Your task to perform on an android device: Open Reddit.com Image 0: 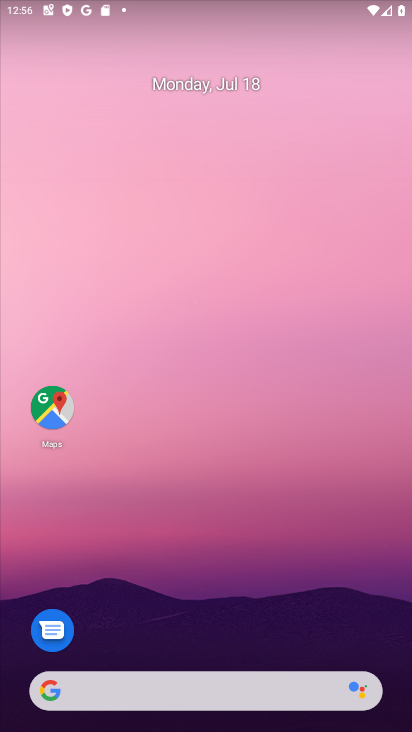
Step 0: drag from (168, 721) to (189, 5)
Your task to perform on an android device: Open Reddit.com Image 1: 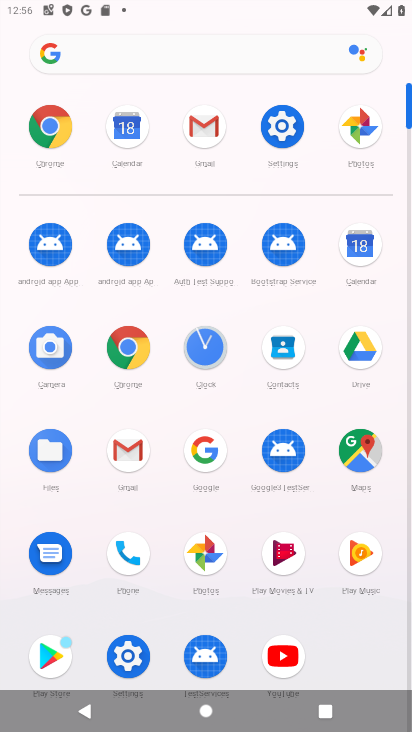
Step 1: click (128, 343)
Your task to perform on an android device: Open Reddit.com Image 2: 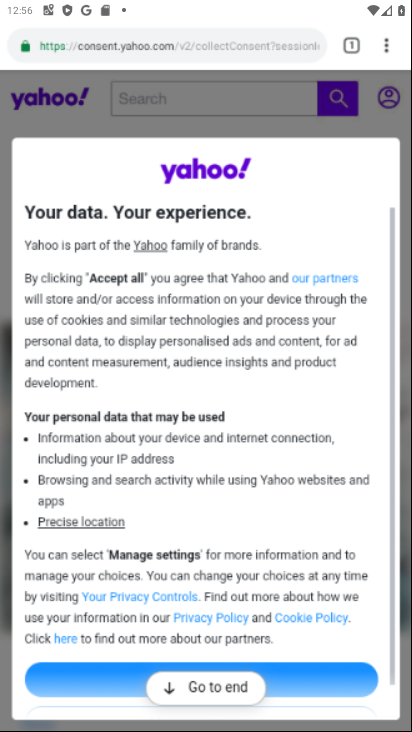
Step 2: click (174, 37)
Your task to perform on an android device: Open Reddit.com Image 3: 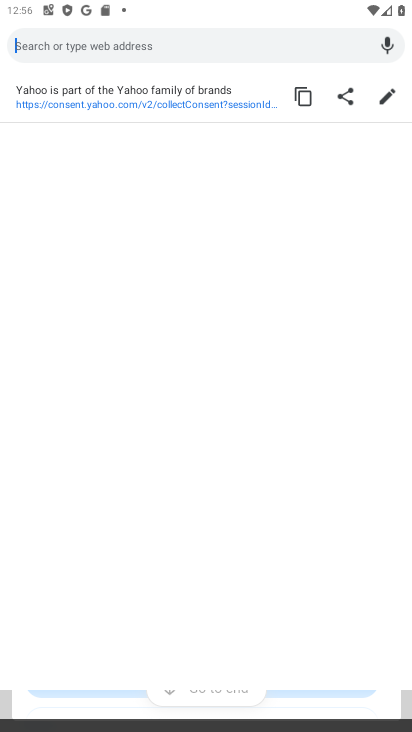
Step 3: type ""
Your task to perform on an android device: Open Reddit.com Image 4: 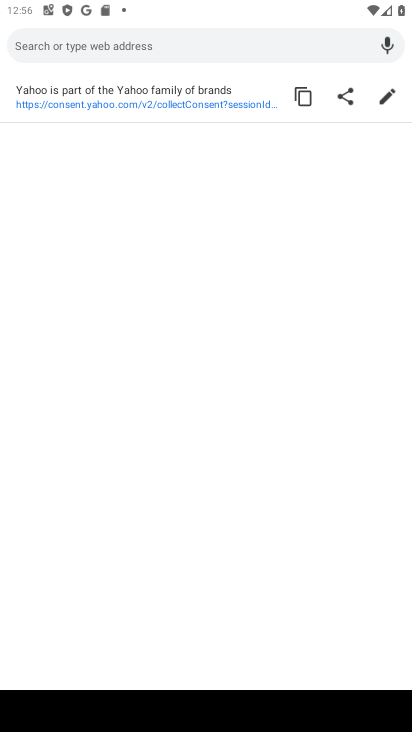
Step 4: type "reddit.com"
Your task to perform on an android device: Open Reddit.com Image 5: 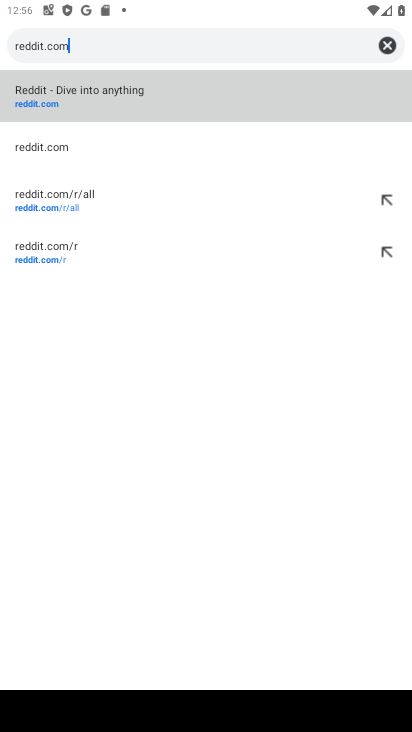
Step 5: click (175, 100)
Your task to perform on an android device: Open Reddit.com Image 6: 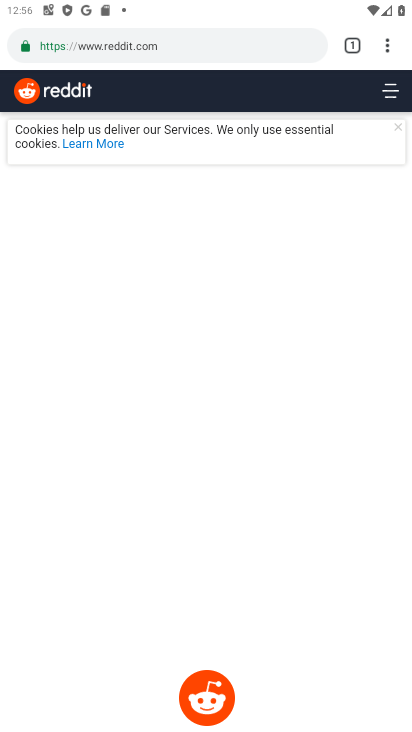
Step 6: task complete